Your task to perform on an android device: Search for a new perfume Image 0: 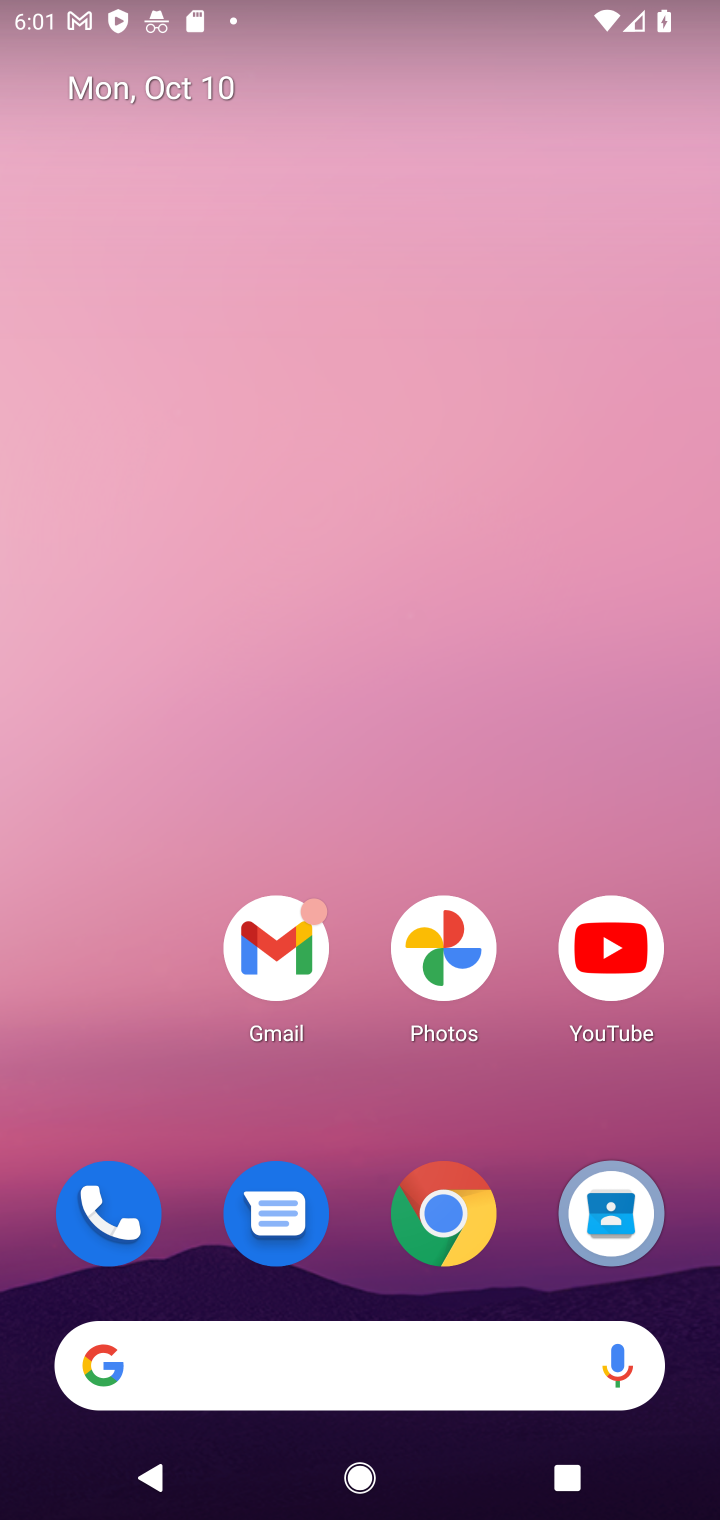
Step 0: click (311, 1340)
Your task to perform on an android device: Search for a new perfume Image 1: 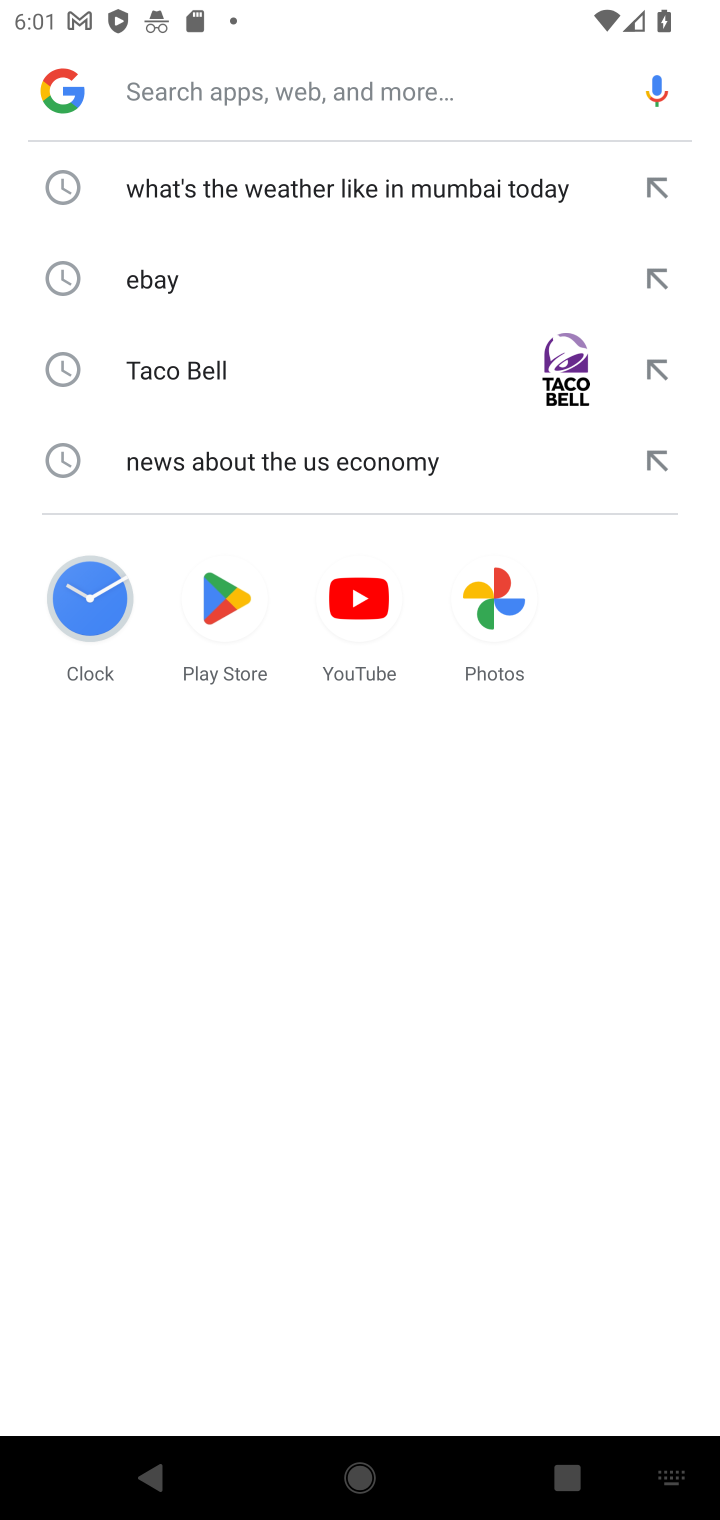
Step 1: click (304, 93)
Your task to perform on an android device: Search for a new perfume Image 2: 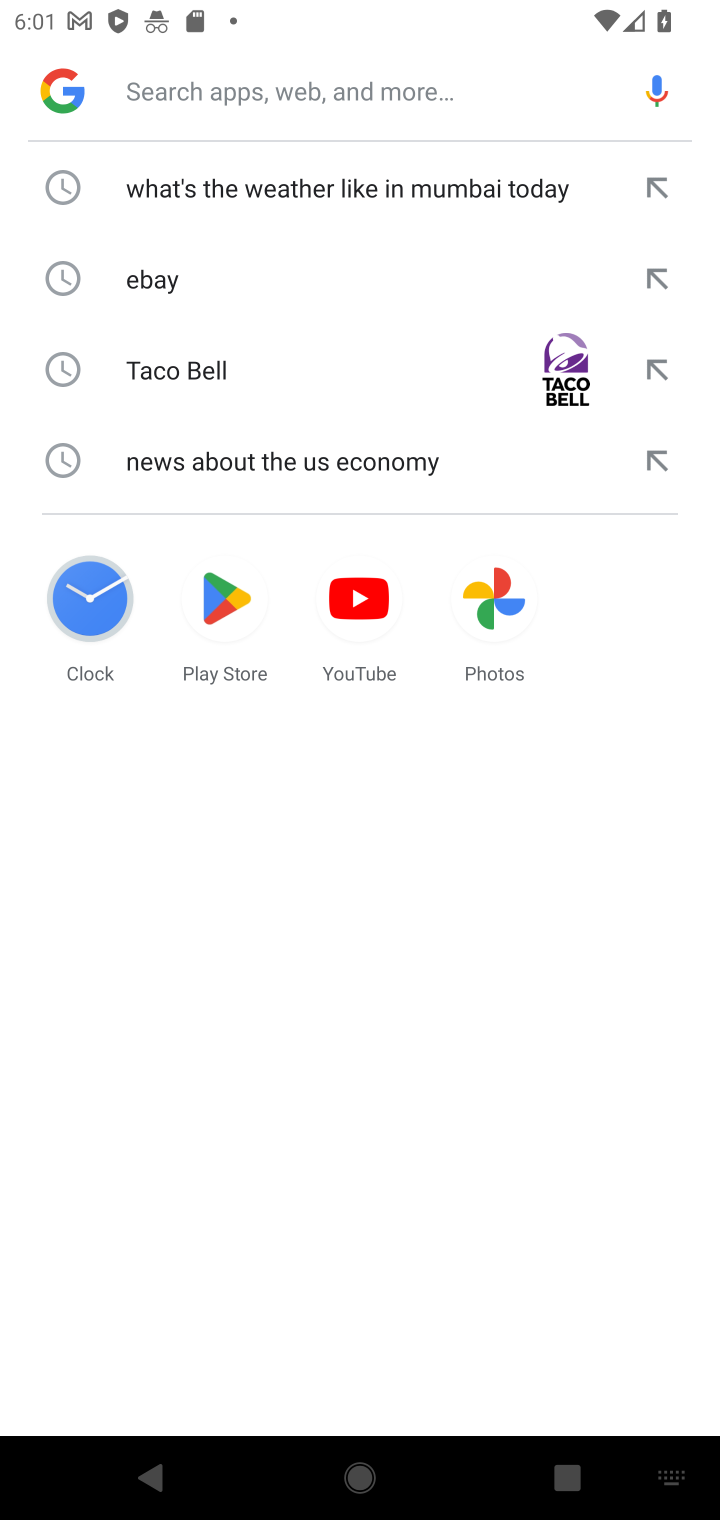
Step 2: type "Search for a new perfume"
Your task to perform on an android device: Search for a new perfume Image 3: 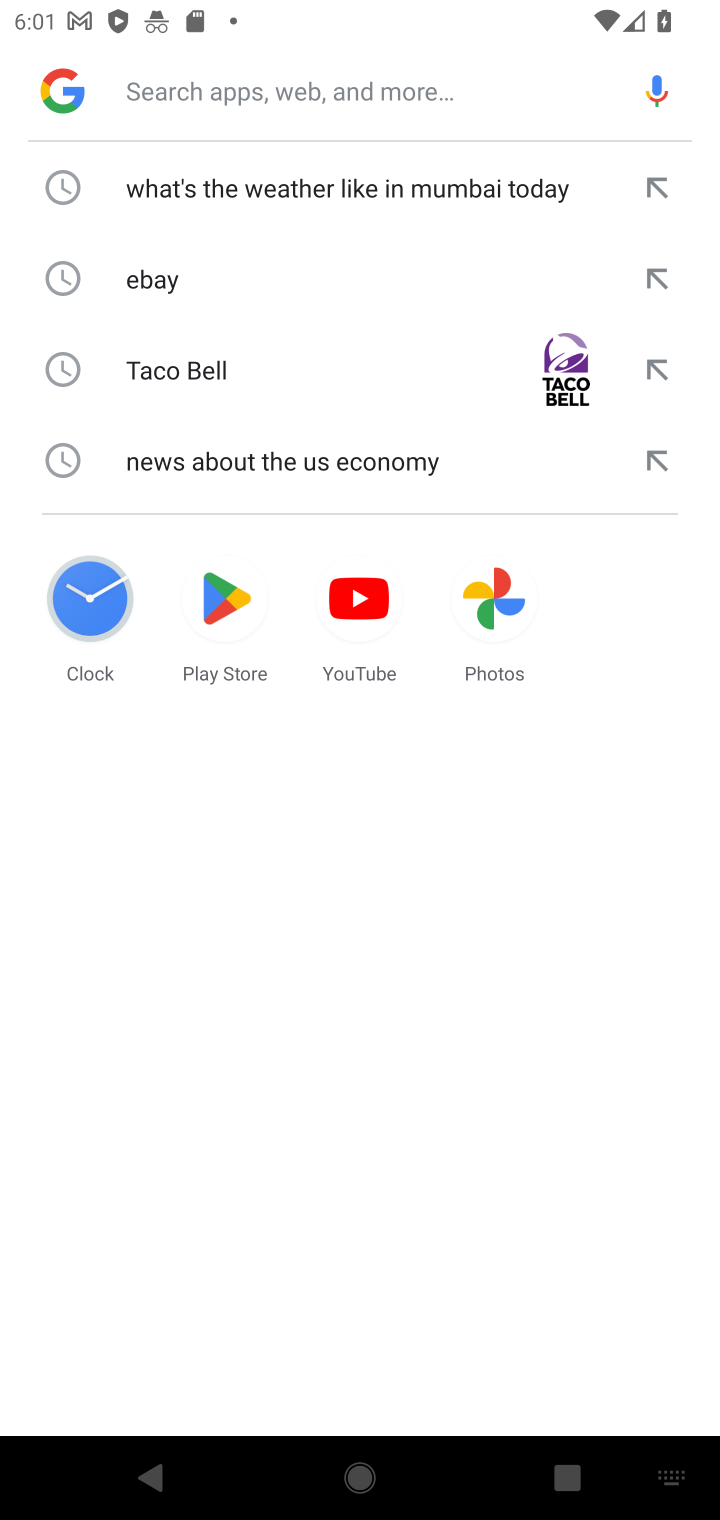
Step 3: click (268, 1181)
Your task to perform on an android device: Search for a new perfume Image 4: 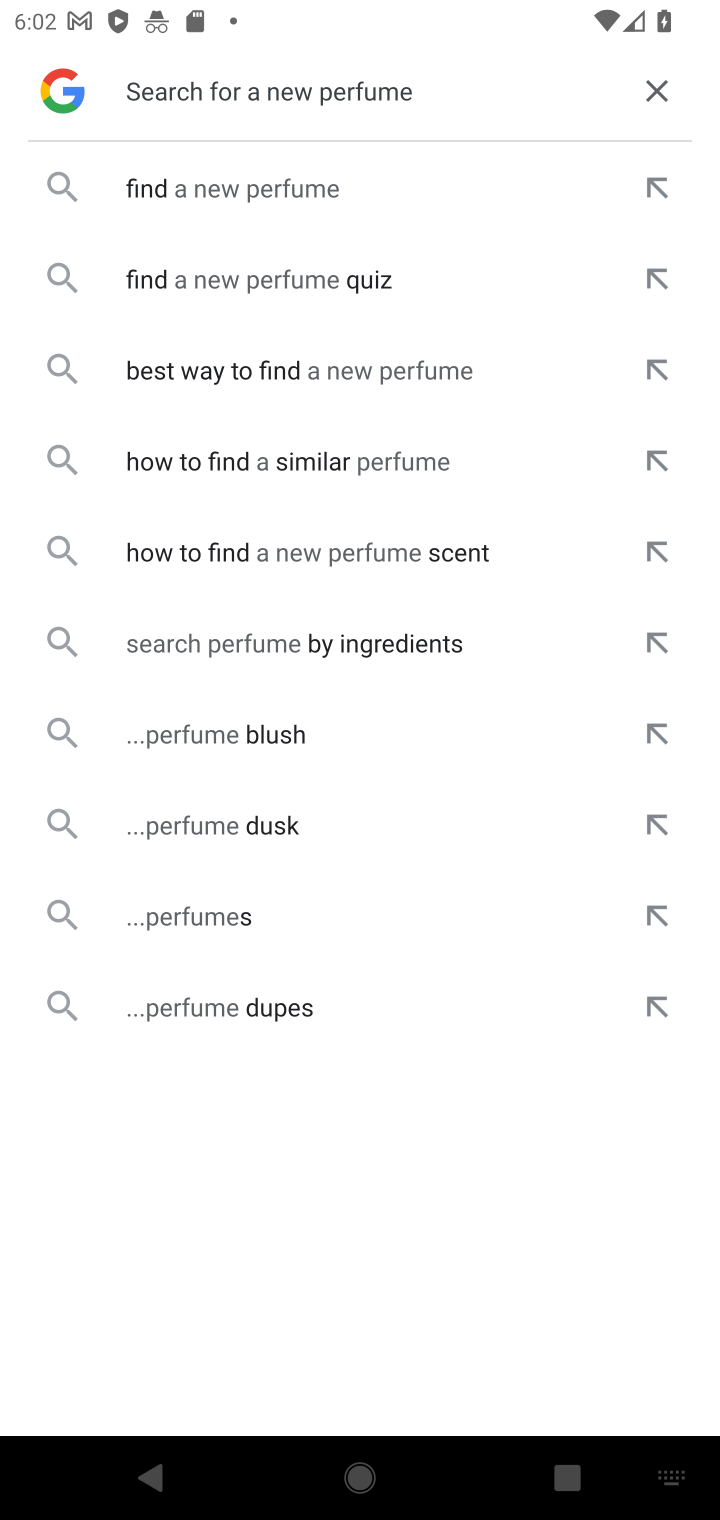
Step 4: click (245, 175)
Your task to perform on an android device: Search for a new perfume Image 5: 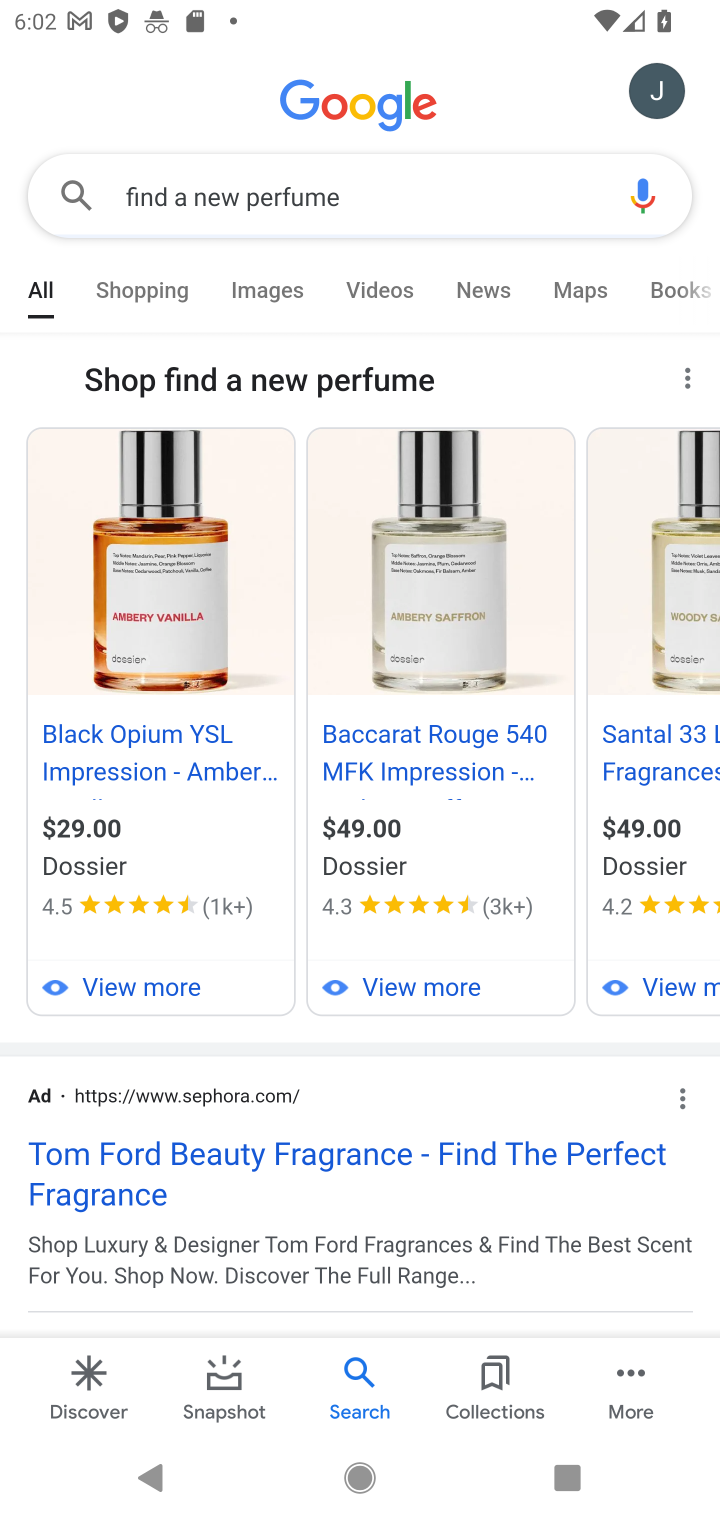
Step 5: task complete